Your task to perform on an android device: choose inbox layout in the gmail app Image 0: 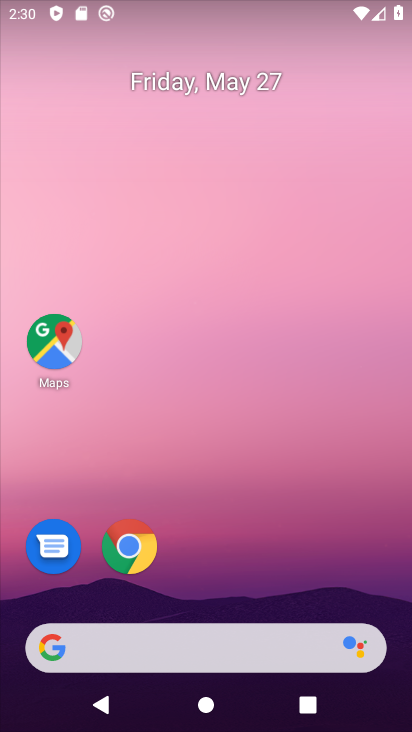
Step 0: drag from (175, 540) to (177, 291)
Your task to perform on an android device: choose inbox layout in the gmail app Image 1: 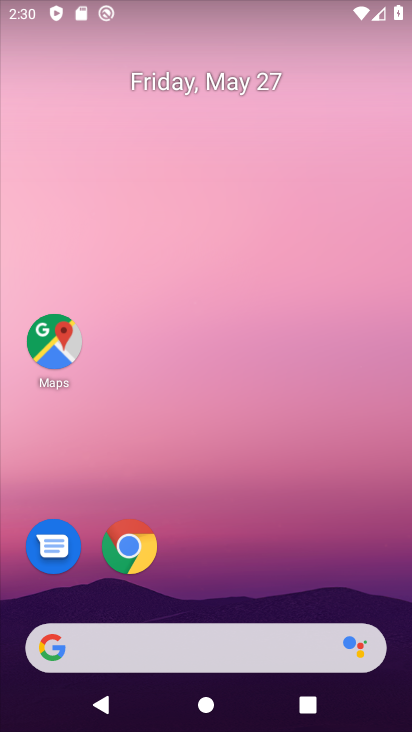
Step 1: drag from (203, 420) to (224, 212)
Your task to perform on an android device: choose inbox layout in the gmail app Image 2: 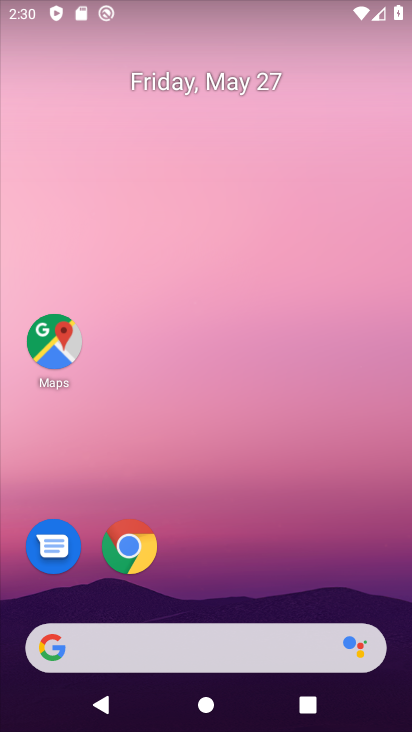
Step 2: drag from (205, 572) to (206, 237)
Your task to perform on an android device: choose inbox layout in the gmail app Image 3: 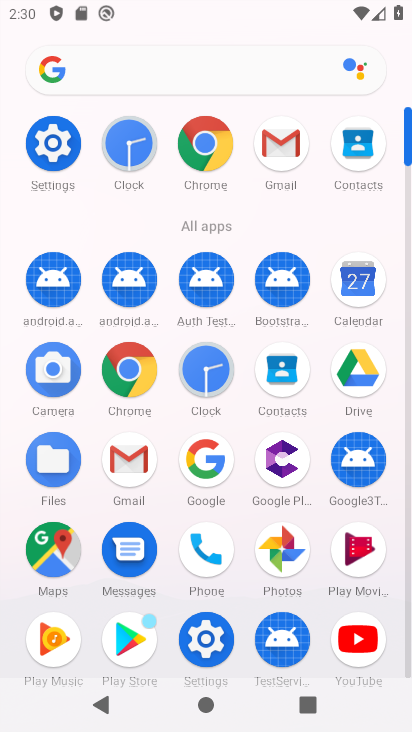
Step 3: click (286, 149)
Your task to perform on an android device: choose inbox layout in the gmail app Image 4: 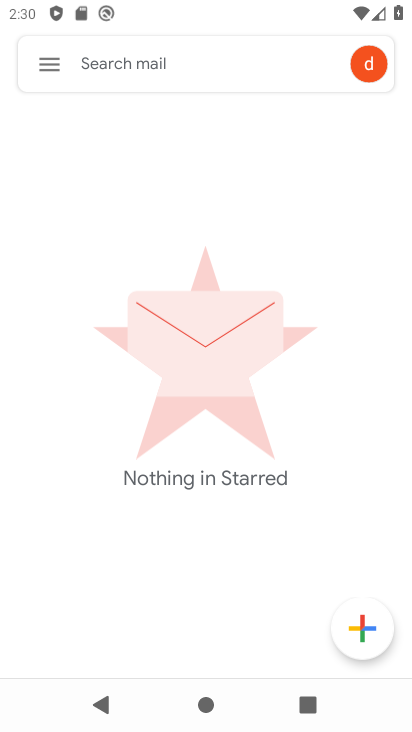
Step 4: click (48, 65)
Your task to perform on an android device: choose inbox layout in the gmail app Image 5: 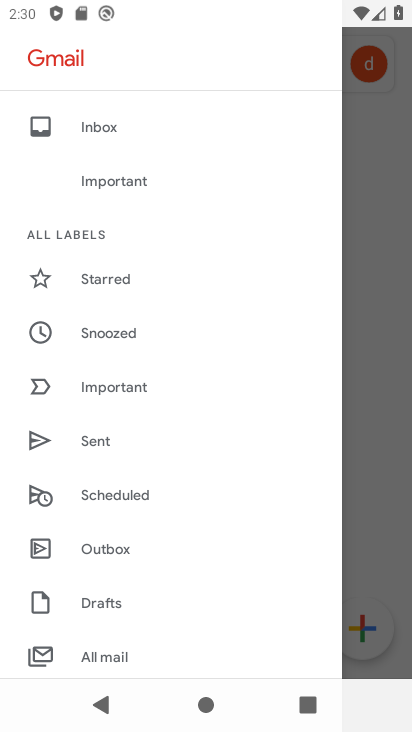
Step 5: drag from (92, 600) to (175, 192)
Your task to perform on an android device: choose inbox layout in the gmail app Image 6: 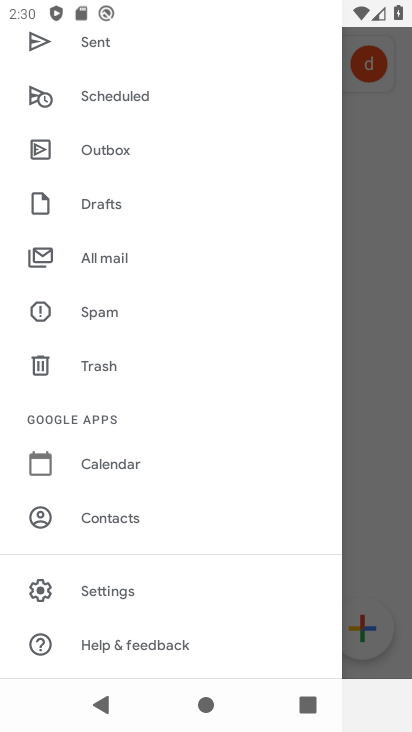
Step 6: click (125, 591)
Your task to perform on an android device: choose inbox layout in the gmail app Image 7: 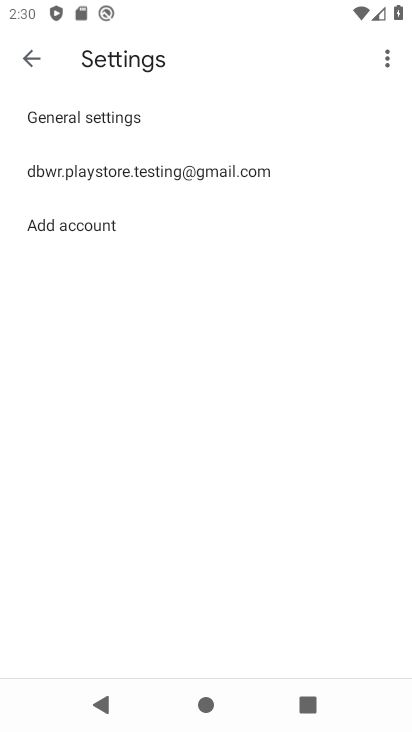
Step 7: click (194, 172)
Your task to perform on an android device: choose inbox layout in the gmail app Image 8: 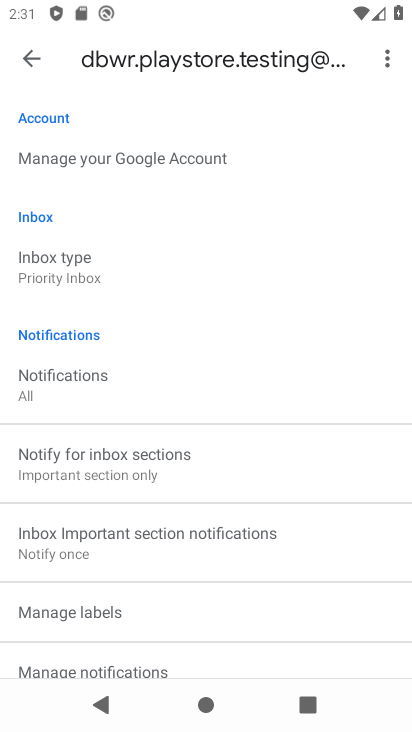
Step 8: click (82, 274)
Your task to perform on an android device: choose inbox layout in the gmail app Image 9: 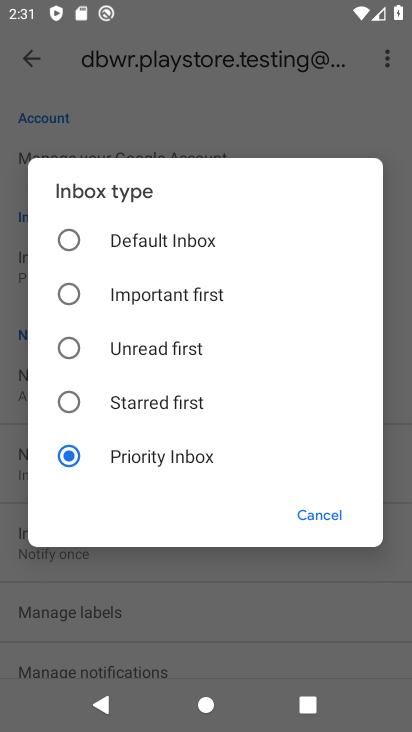
Step 9: click (206, 250)
Your task to perform on an android device: choose inbox layout in the gmail app Image 10: 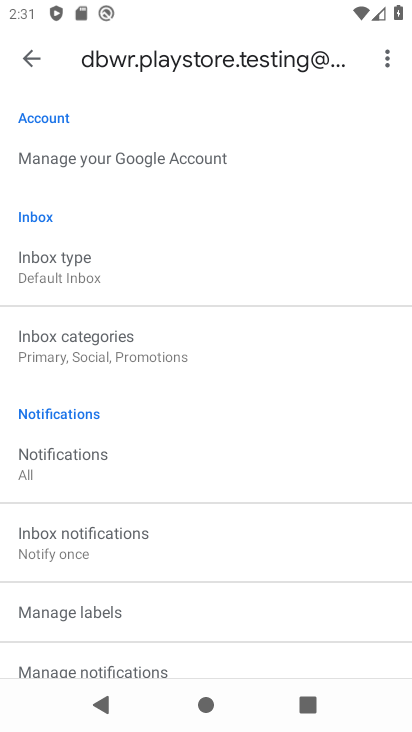
Step 10: task complete